Your task to perform on an android device: Search for pizza restaurants on Maps Image 0: 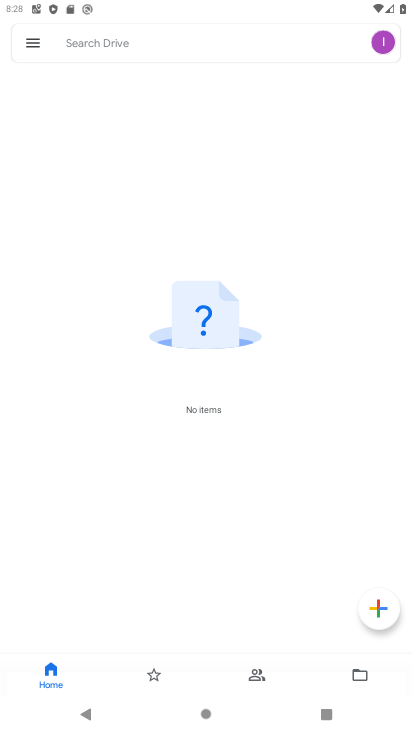
Step 0: press home button
Your task to perform on an android device: Search for pizza restaurants on Maps Image 1: 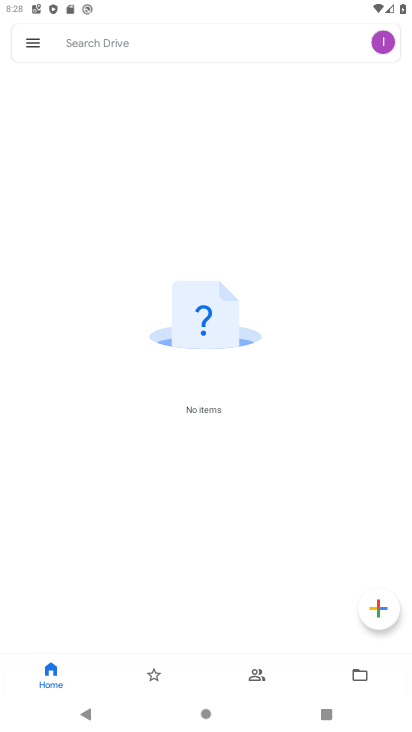
Step 1: press home button
Your task to perform on an android device: Search for pizza restaurants on Maps Image 2: 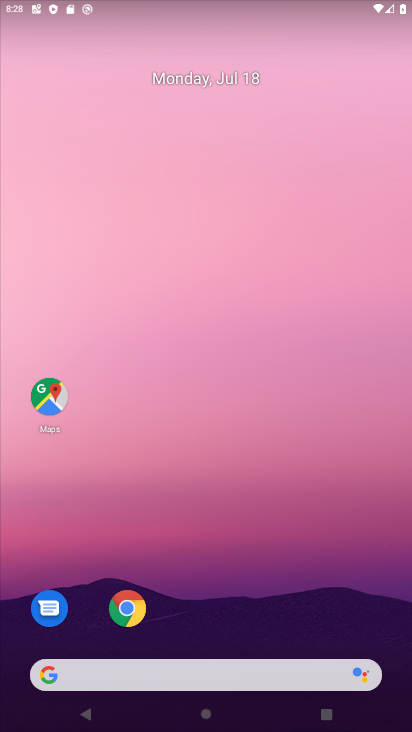
Step 2: drag from (236, 719) to (233, 211)
Your task to perform on an android device: Search for pizza restaurants on Maps Image 3: 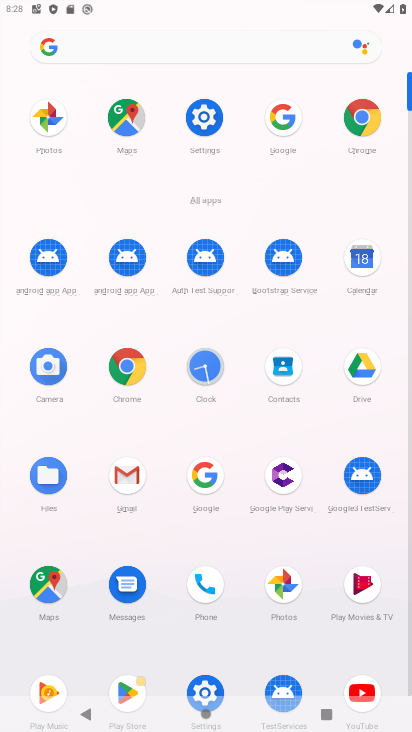
Step 3: click (42, 587)
Your task to perform on an android device: Search for pizza restaurants on Maps Image 4: 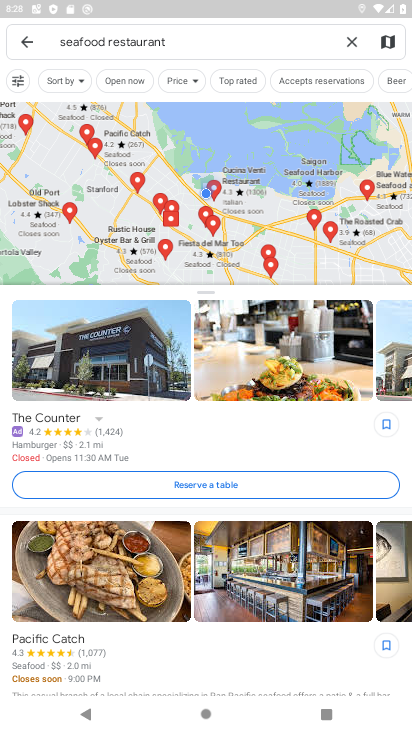
Step 4: click (354, 38)
Your task to perform on an android device: Search for pizza restaurants on Maps Image 5: 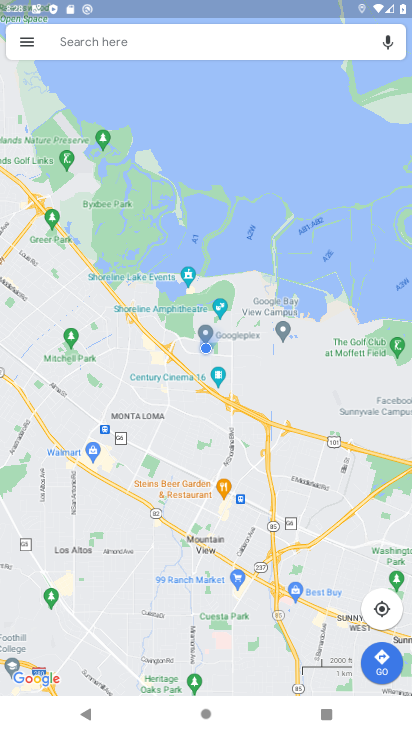
Step 5: click (189, 49)
Your task to perform on an android device: Search for pizza restaurants on Maps Image 6: 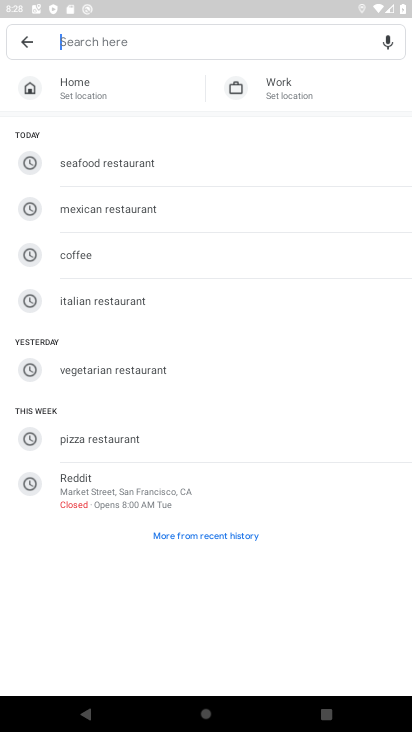
Step 6: type "pizza restaurants"
Your task to perform on an android device: Search for pizza restaurants on Maps Image 7: 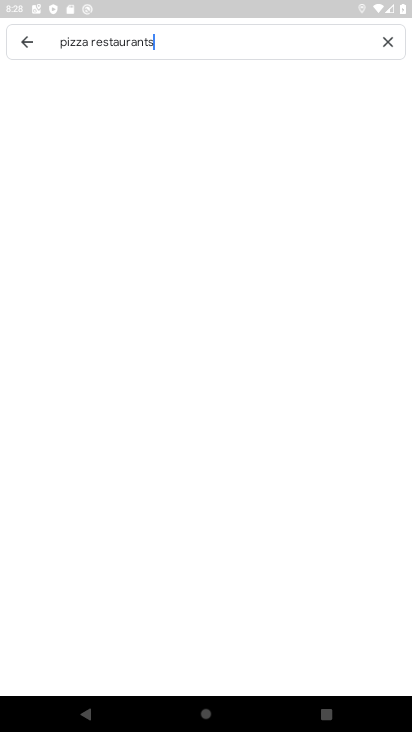
Step 7: type ""
Your task to perform on an android device: Search for pizza restaurants on Maps Image 8: 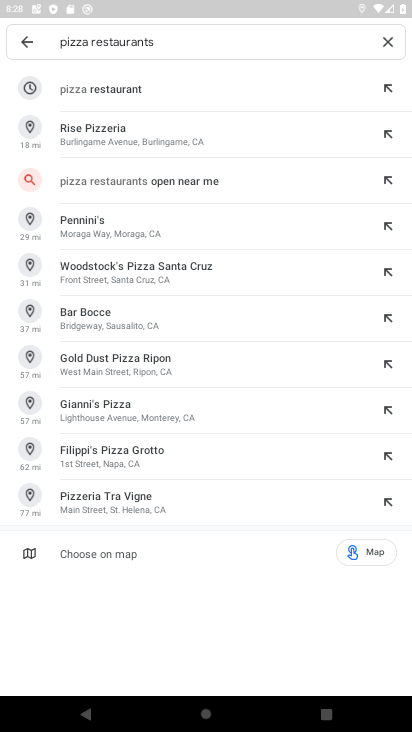
Step 8: click (108, 90)
Your task to perform on an android device: Search for pizza restaurants on Maps Image 9: 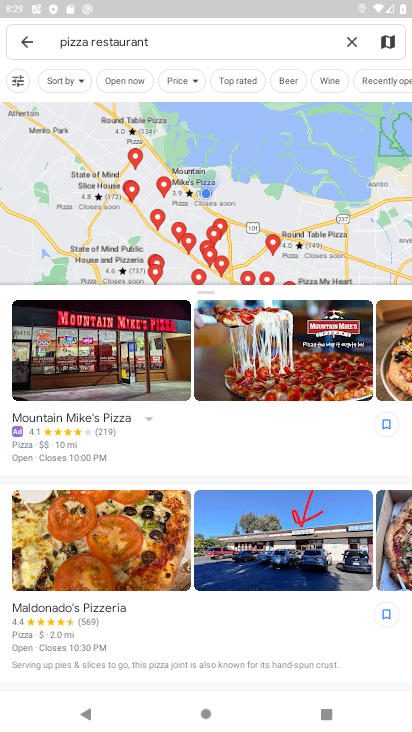
Step 9: task complete